Your task to perform on an android device: Add dell xps to the cart on newegg, then select checkout. Image 0: 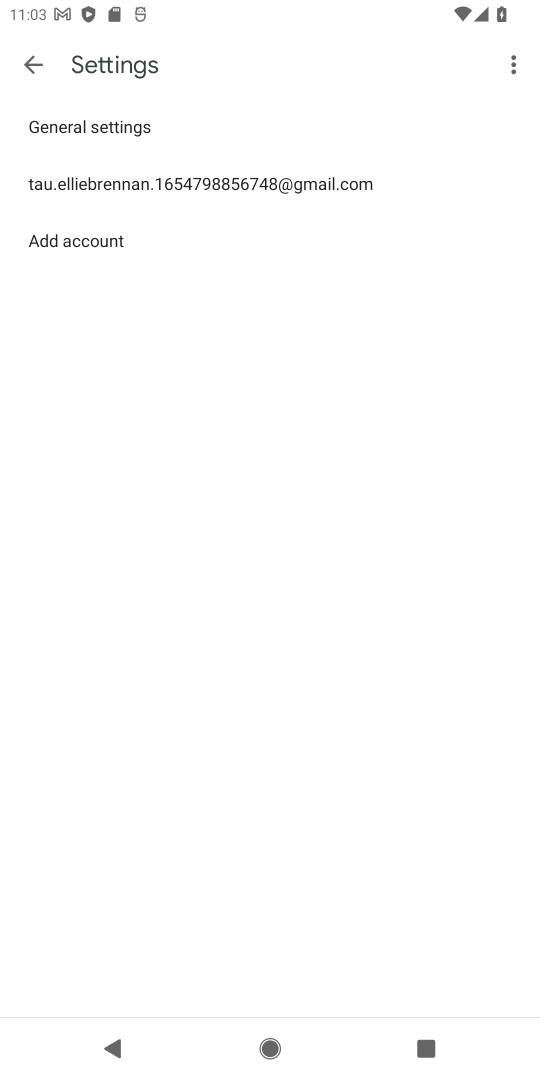
Step 0: press home button
Your task to perform on an android device: Add dell xps to the cart on newegg, then select checkout. Image 1: 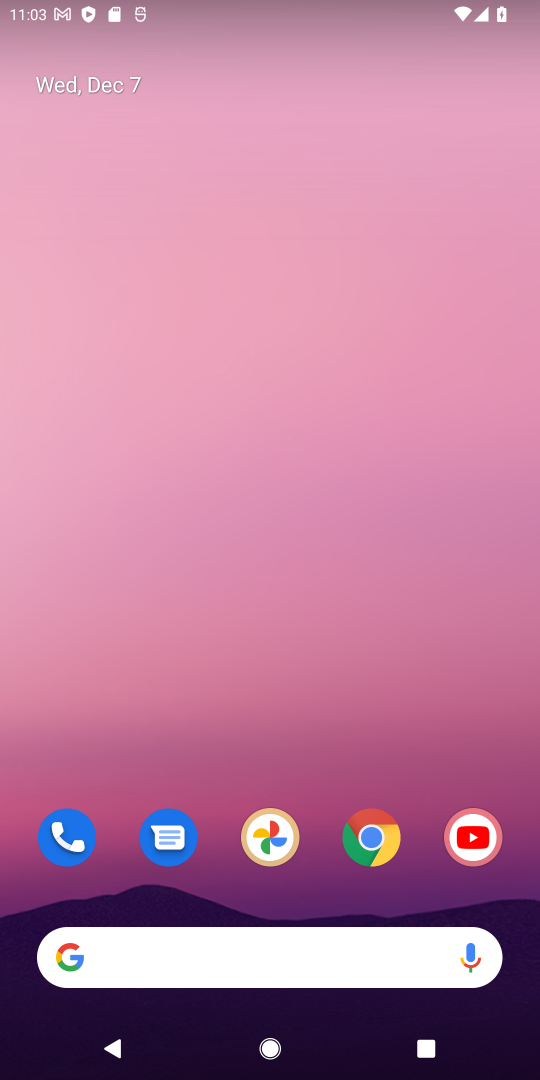
Step 1: click (376, 840)
Your task to perform on an android device: Add dell xps to the cart on newegg, then select checkout. Image 2: 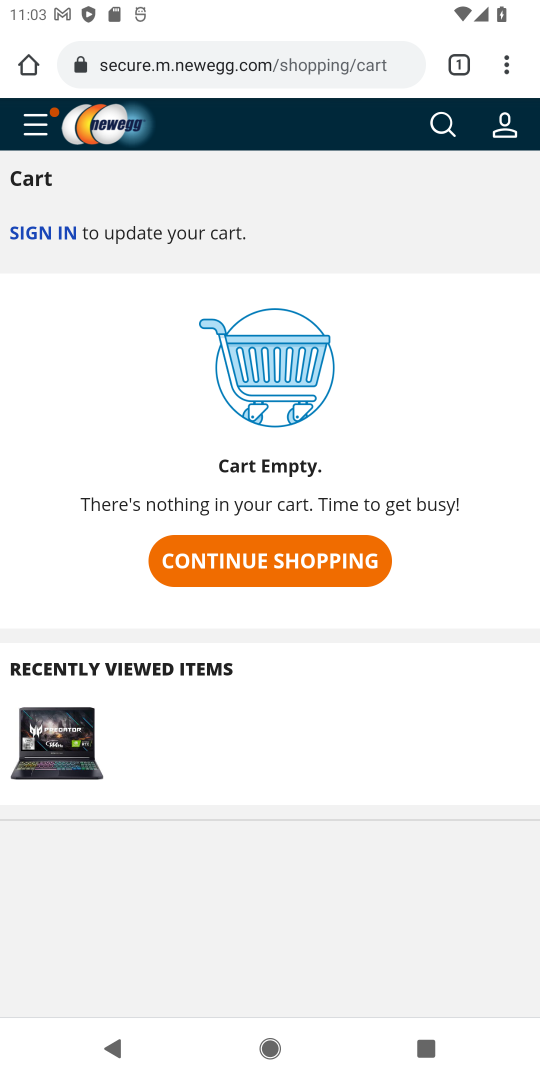
Step 2: click (441, 124)
Your task to perform on an android device: Add dell xps to the cart on newegg, then select checkout. Image 3: 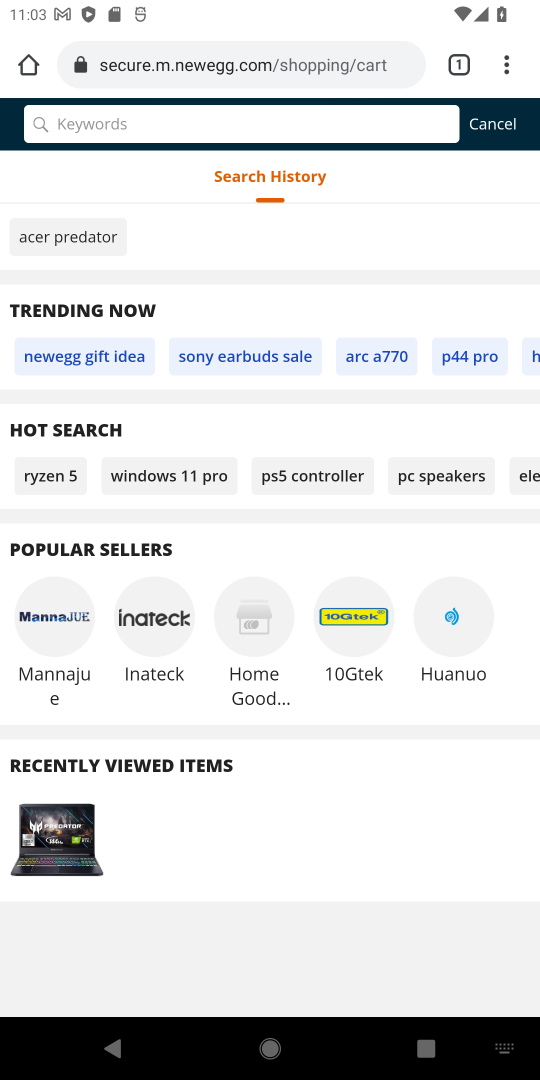
Step 3: type "dell xps"
Your task to perform on an android device: Add dell xps to the cart on newegg, then select checkout. Image 4: 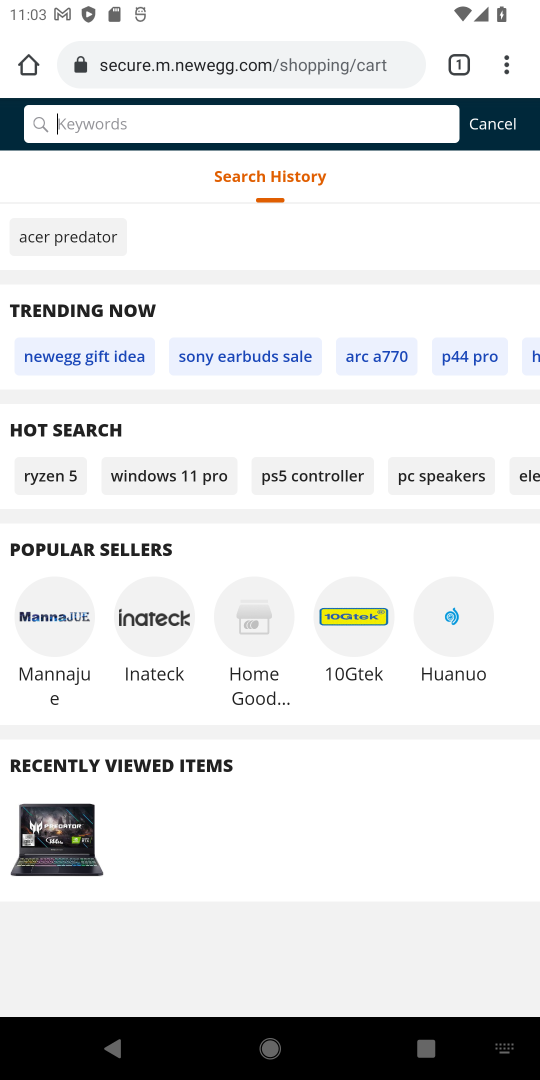
Step 4: press enter
Your task to perform on an android device: Add dell xps to the cart on newegg, then select checkout. Image 5: 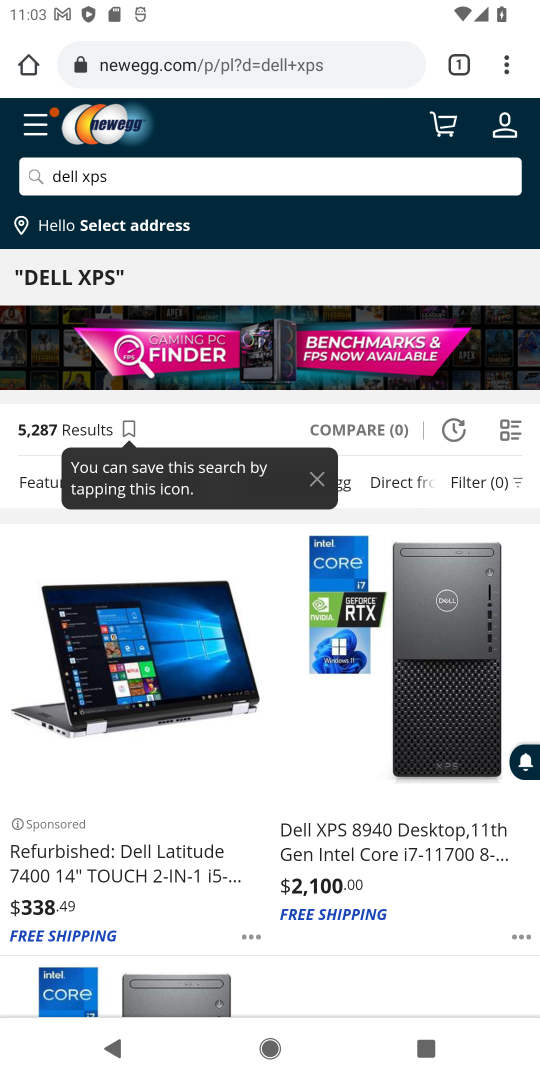
Step 5: click (390, 644)
Your task to perform on an android device: Add dell xps to the cart on newegg, then select checkout. Image 6: 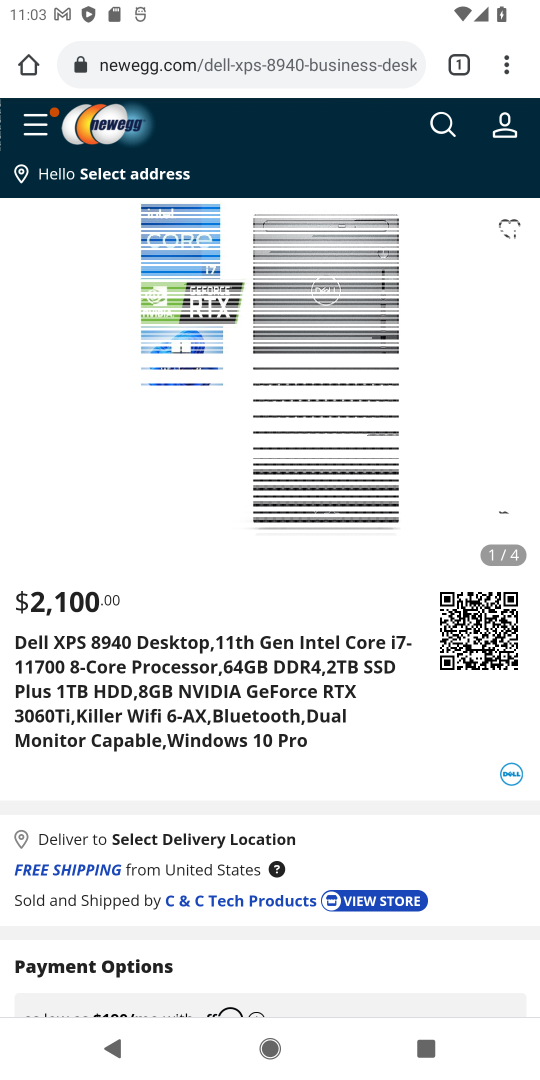
Step 6: drag from (352, 790) to (305, 376)
Your task to perform on an android device: Add dell xps to the cart on newegg, then select checkout. Image 7: 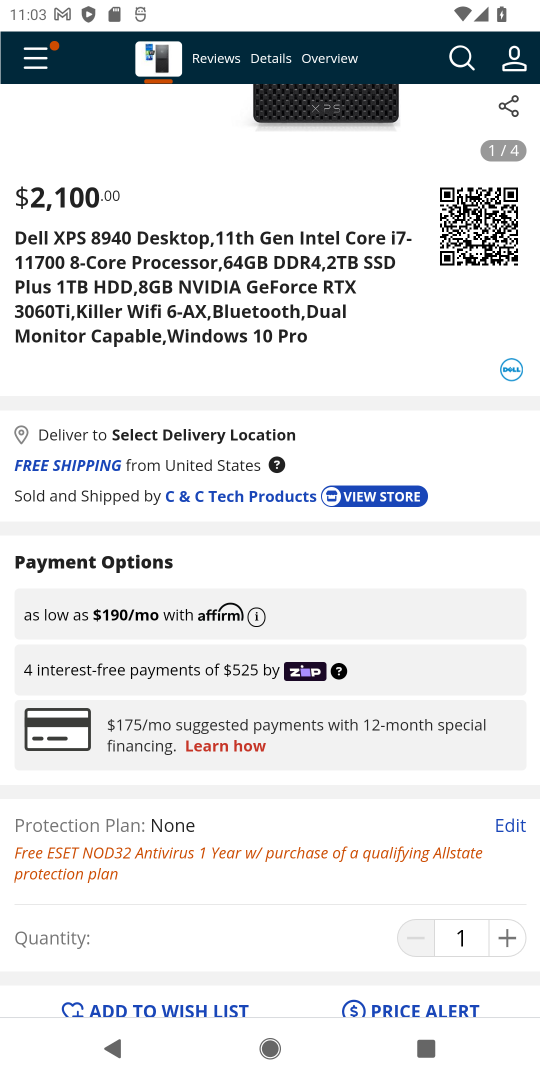
Step 7: click (235, 991)
Your task to perform on an android device: Add dell xps to the cart on newegg, then select checkout. Image 8: 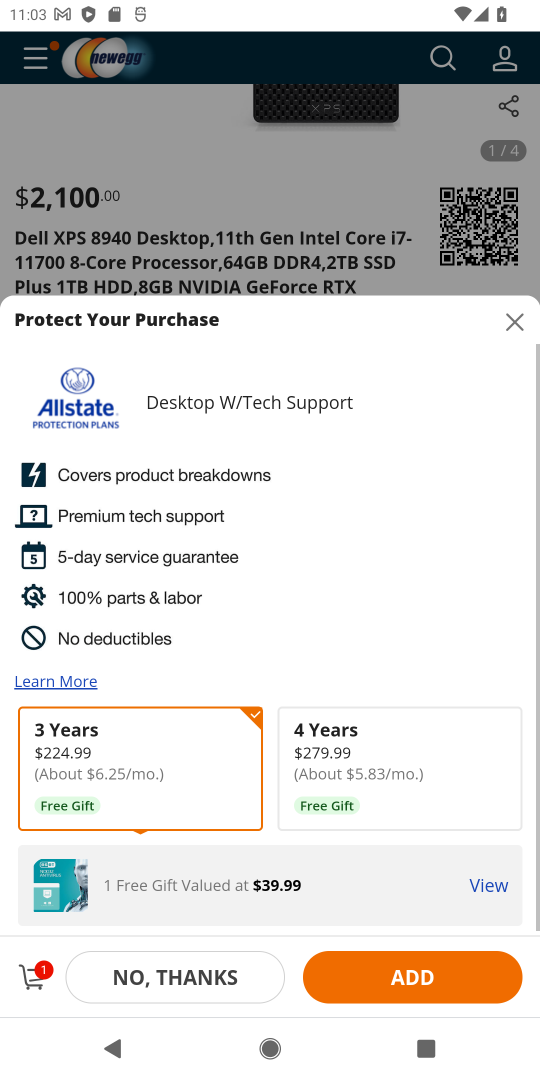
Step 8: click (26, 981)
Your task to perform on an android device: Add dell xps to the cart on newegg, then select checkout. Image 9: 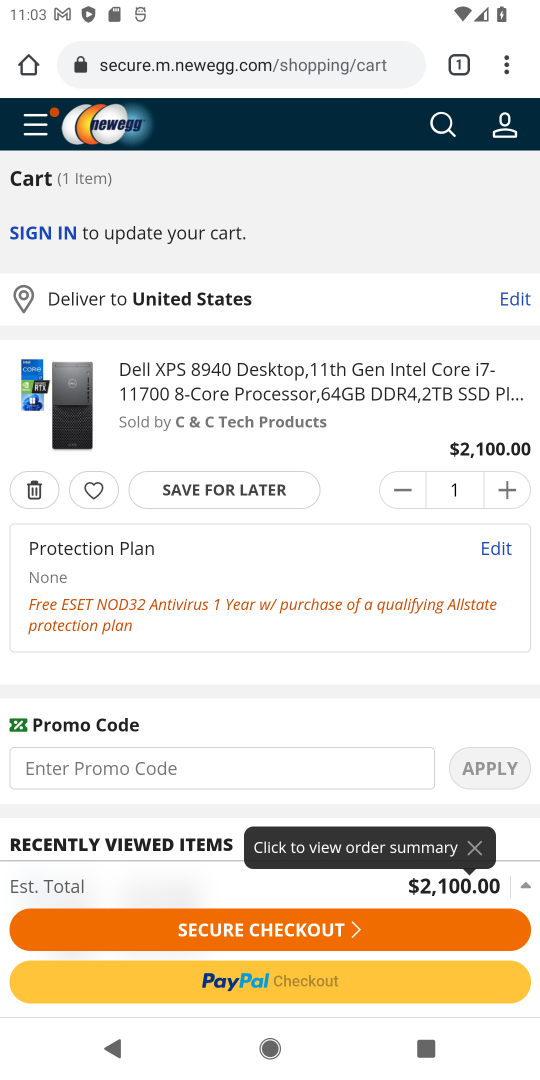
Step 9: click (315, 891)
Your task to perform on an android device: Add dell xps to the cart on newegg, then select checkout. Image 10: 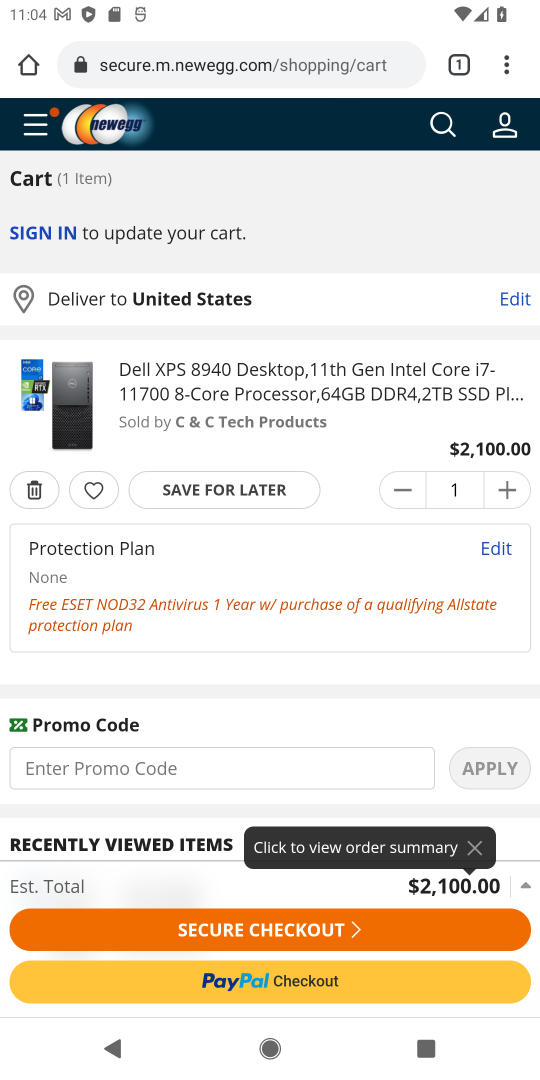
Step 10: click (305, 939)
Your task to perform on an android device: Add dell xps to the cart on newegg, then select checkout. Image 11: 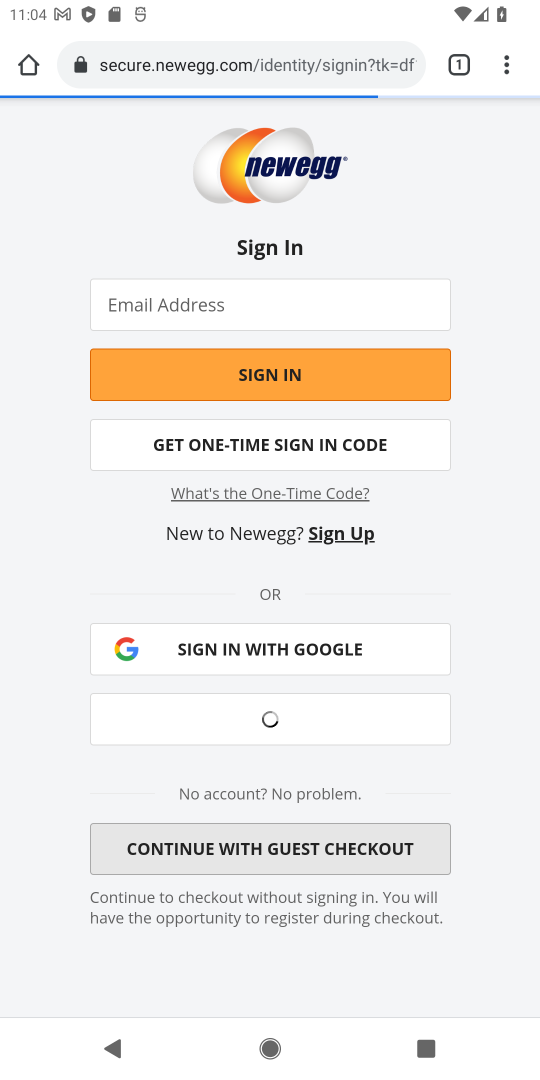
Step 11: click (305, 931)
Your task to perform on an android device: Add dell xps to the cart on newegg, then select checkout. Image 12: 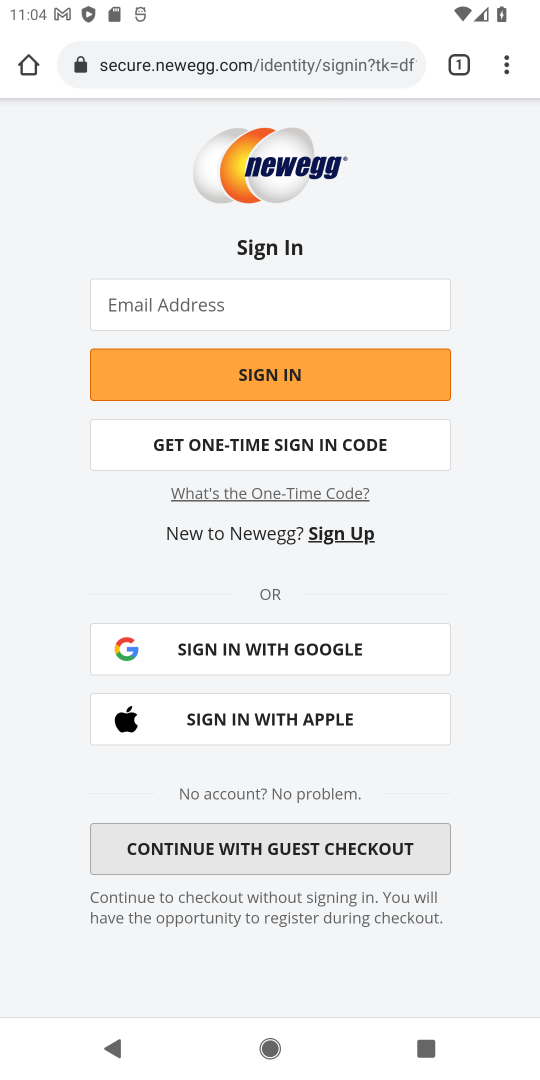
Step 12: task complete